Your task to perform on an android device: Show me recent news Image 0: 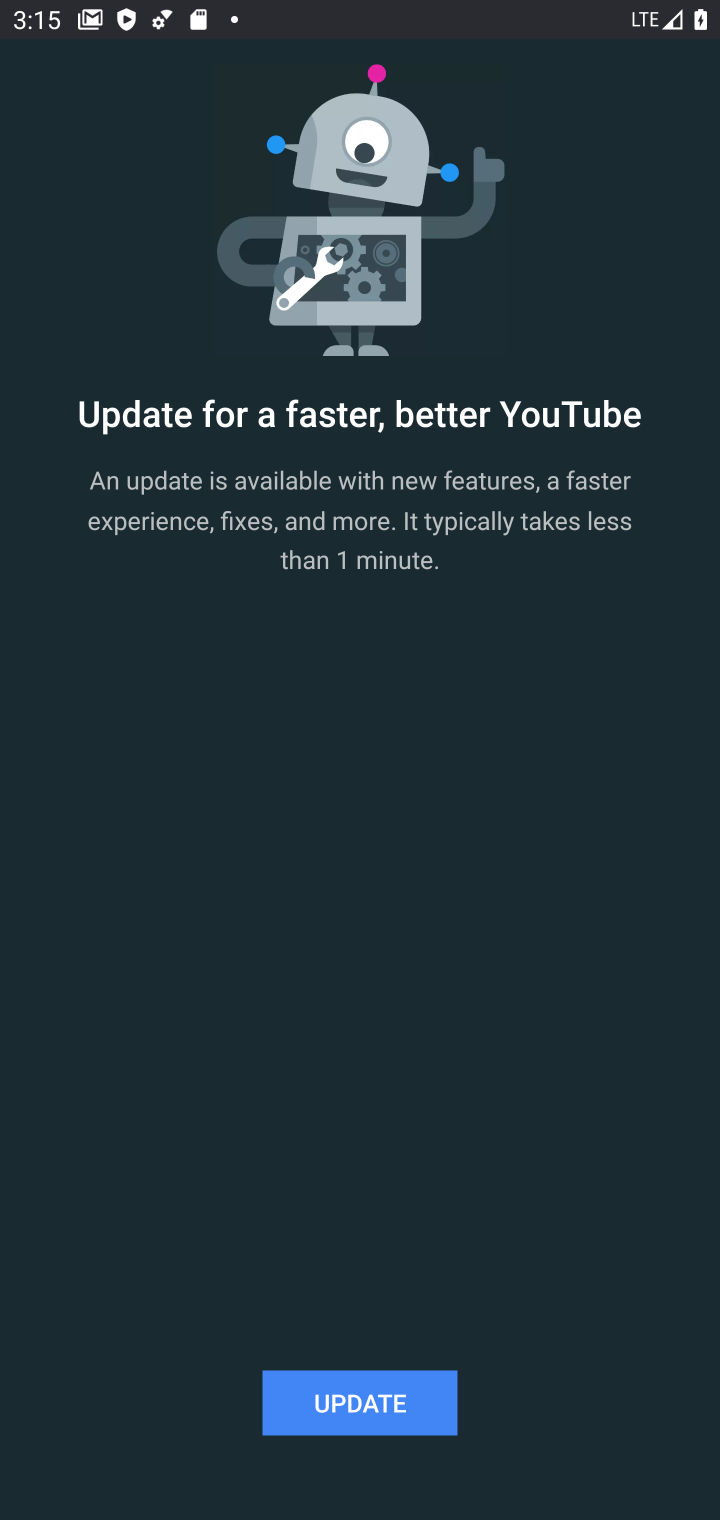
Step 0: press back button
Your task to perform on an android device: Show me recent news Image 1: 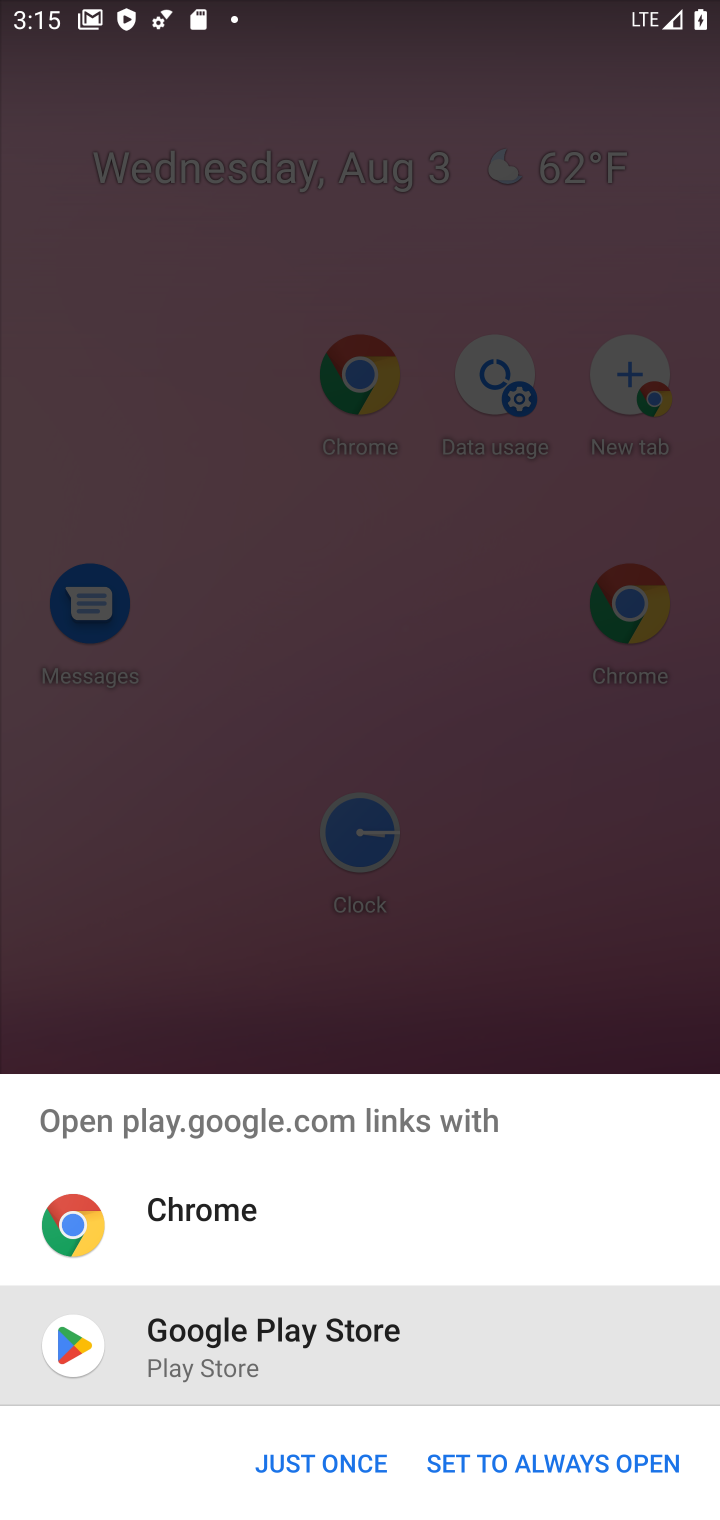
Step 1: drag from (335, 756) to (337, 381)
Your task to perform on an android device: Show me recent news Image 2: 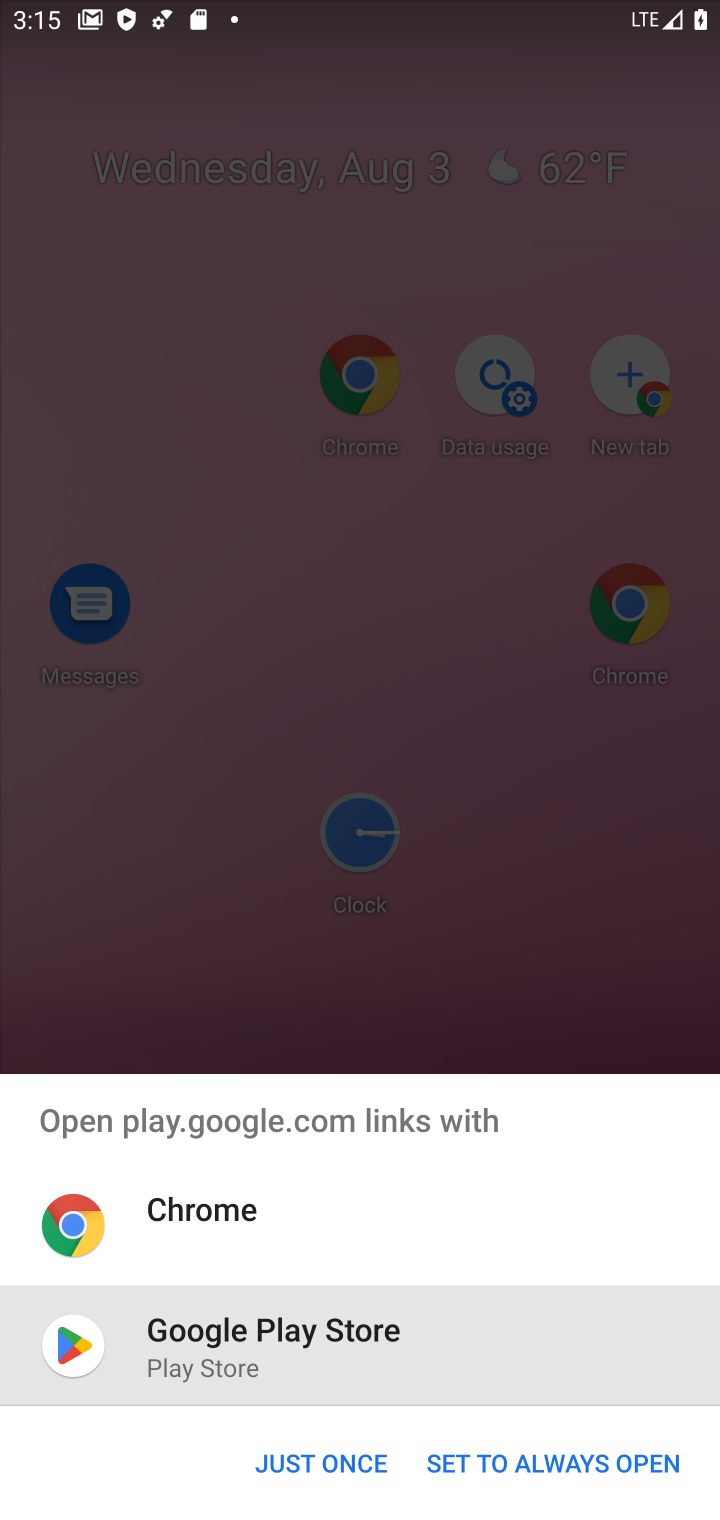
Step 2: drag from (382, 820) to (360, 307)
Your task to perform on an android device: Show me recent news Image 3: 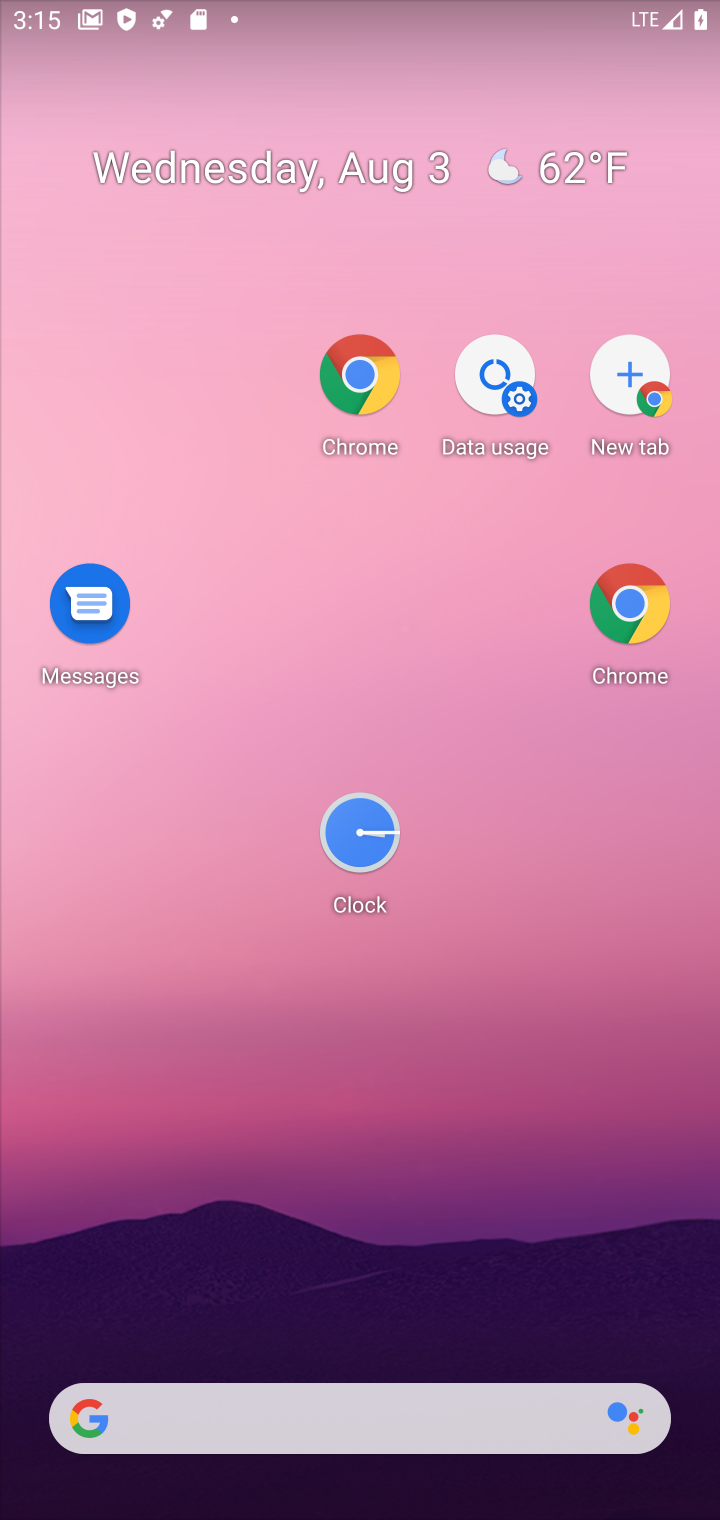
Step 3: click (273, 463)
Your task to perform on an android device: Show me recent news Image 4: 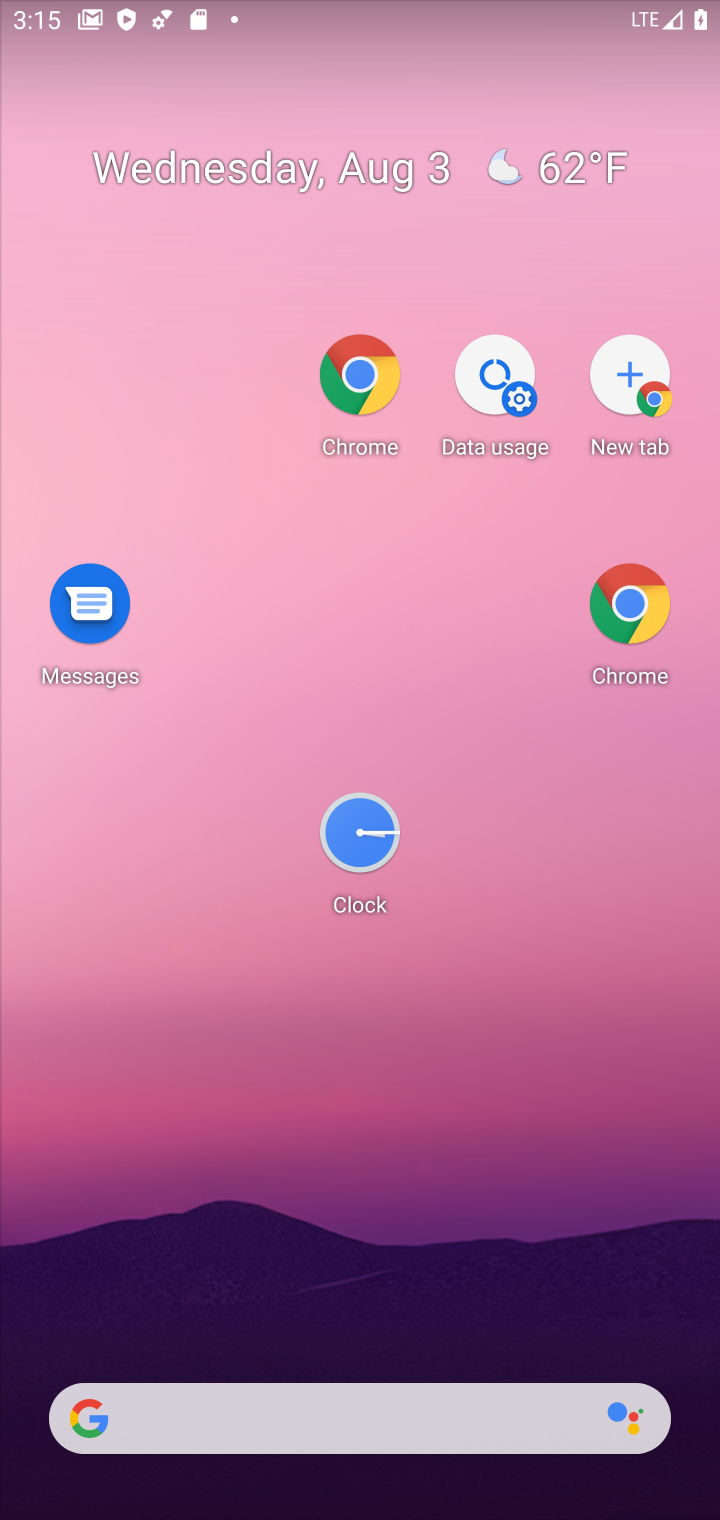
Step 4: drag from (347, 842) to (460, 331)
Your task to perform on an android device: Show me recent news Image 5: 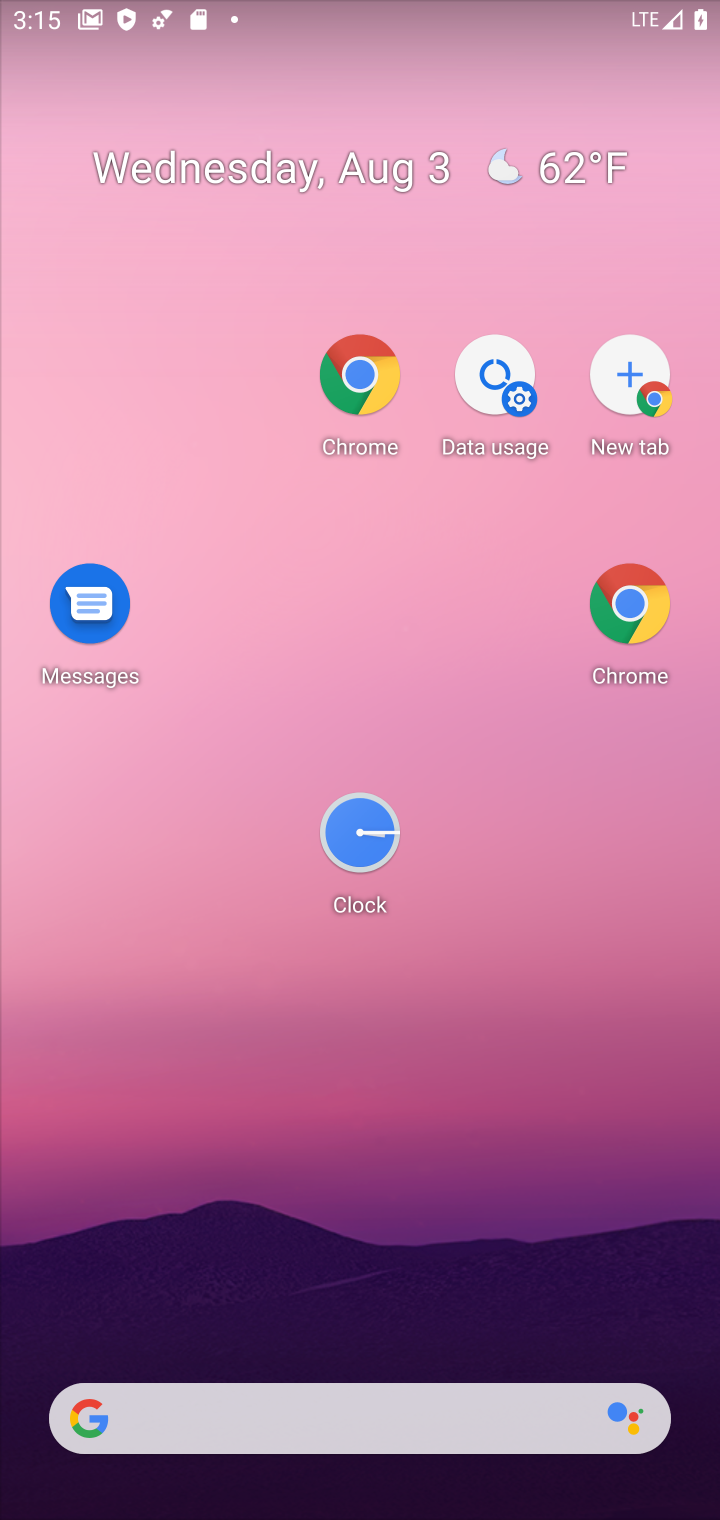
Step 5: drag from (462, 731) to (494, 172)
Your task to perform on an android device: Show me recent news Image 6: 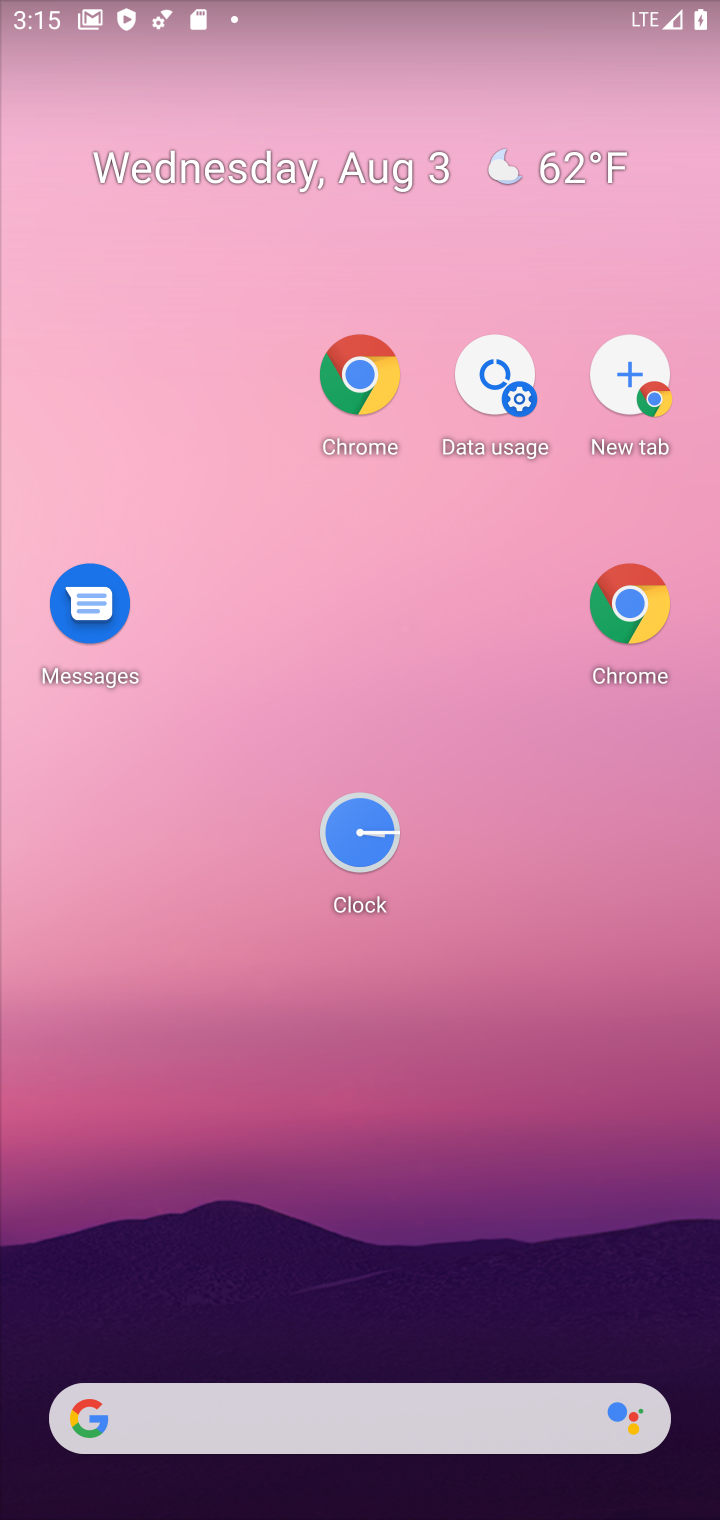
Step 6: drag from (453, 758) to (453, 328)
Your task to perform on an android device: Show me recent news Image 7: 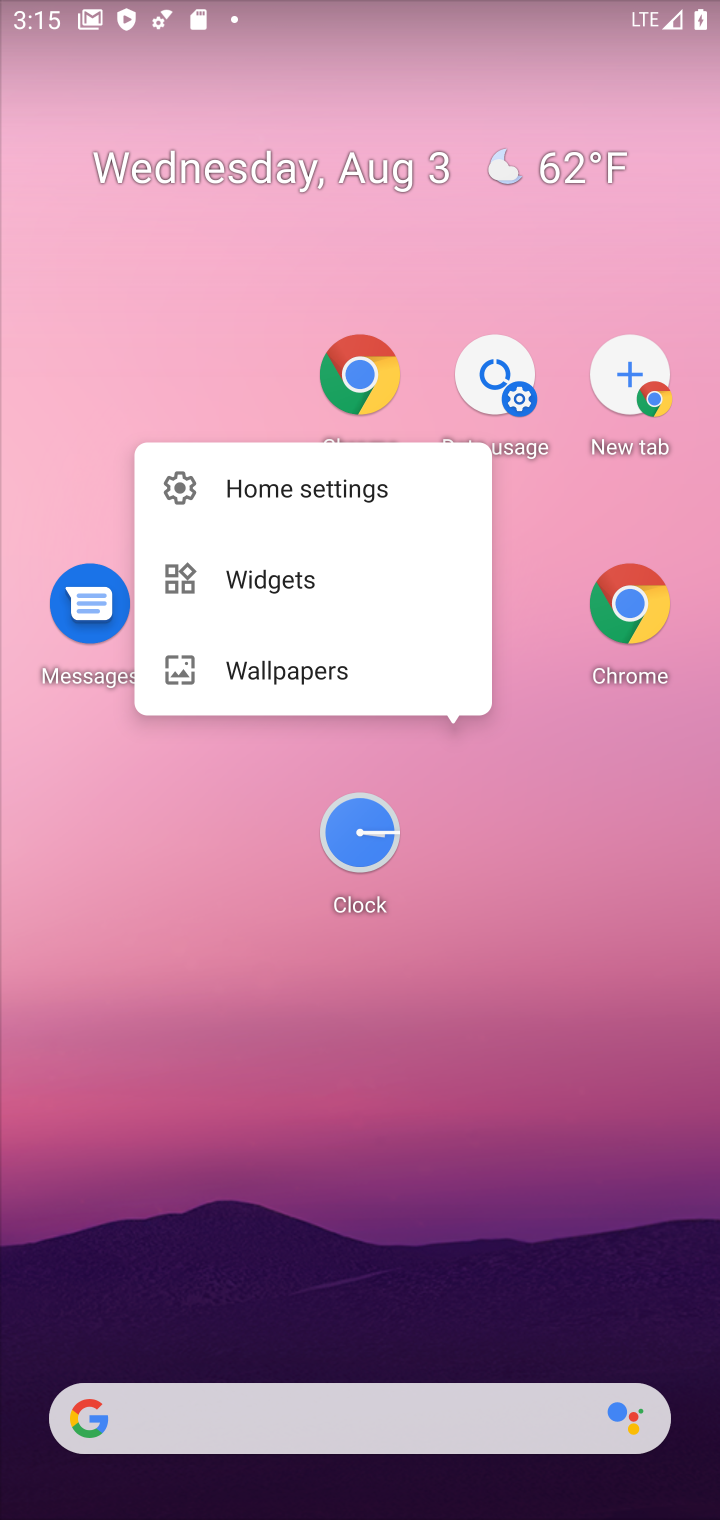
Step 7: click (639, 597)
Your task to perform on an android device: Show me recent news Image 8: 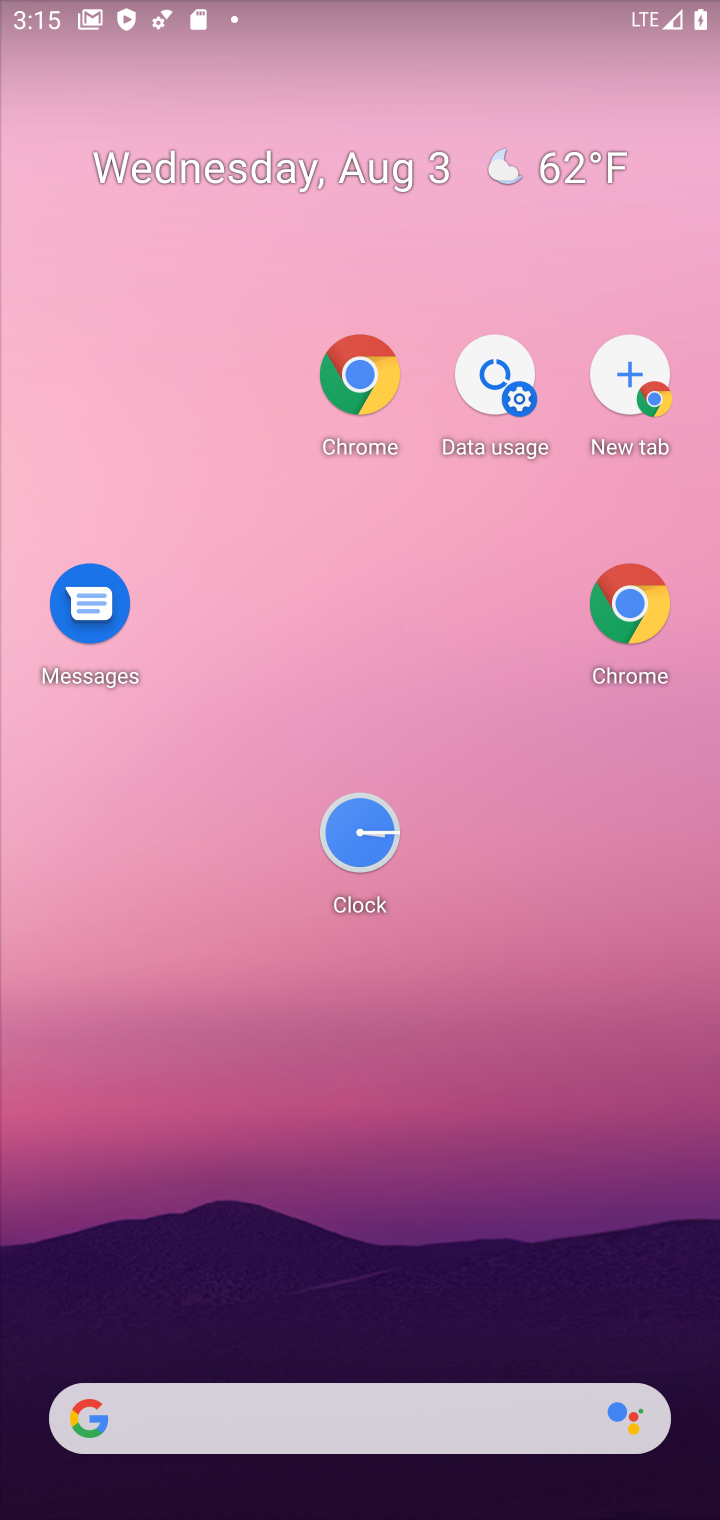
Step 8: drag from (286, 1404) to (246, 600)
Your task to perform on an android device: Show me recent news Image 9: 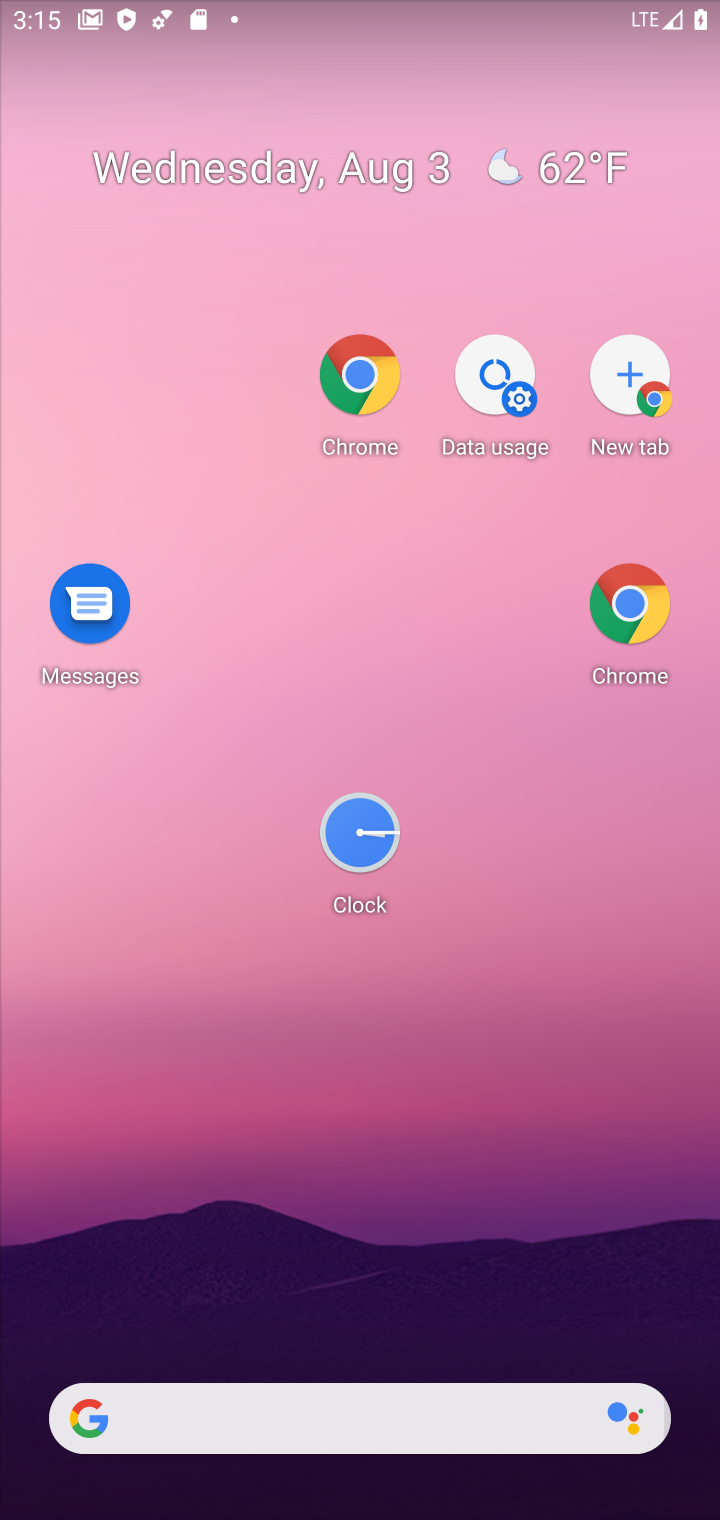
Step 9: drag from (327, 683) to (327, 465)
Your task to perform on an android device: Show me recent news Image 10: 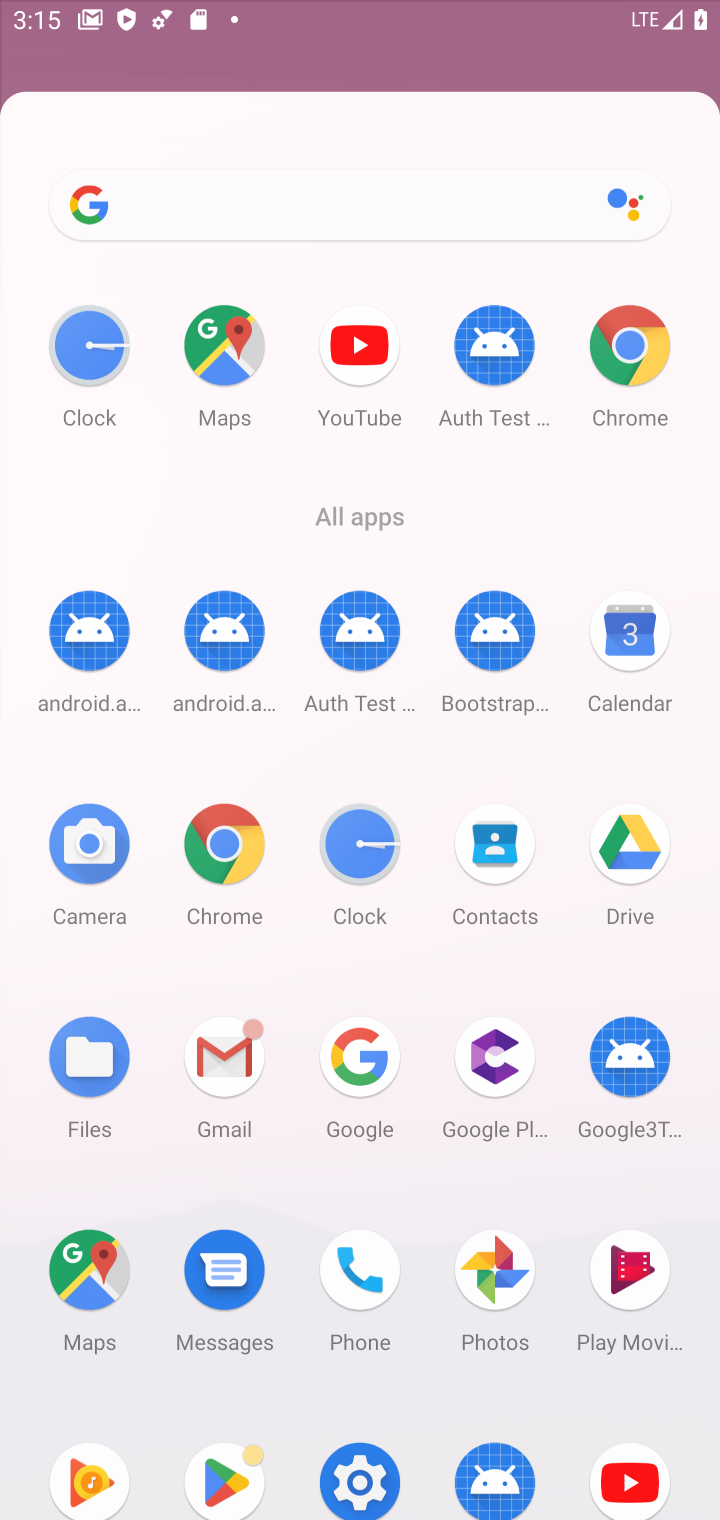
Step 10: drag from (331, 862) to (394, 439)
Your task to perform on an android device: Show me recent news Image 11: 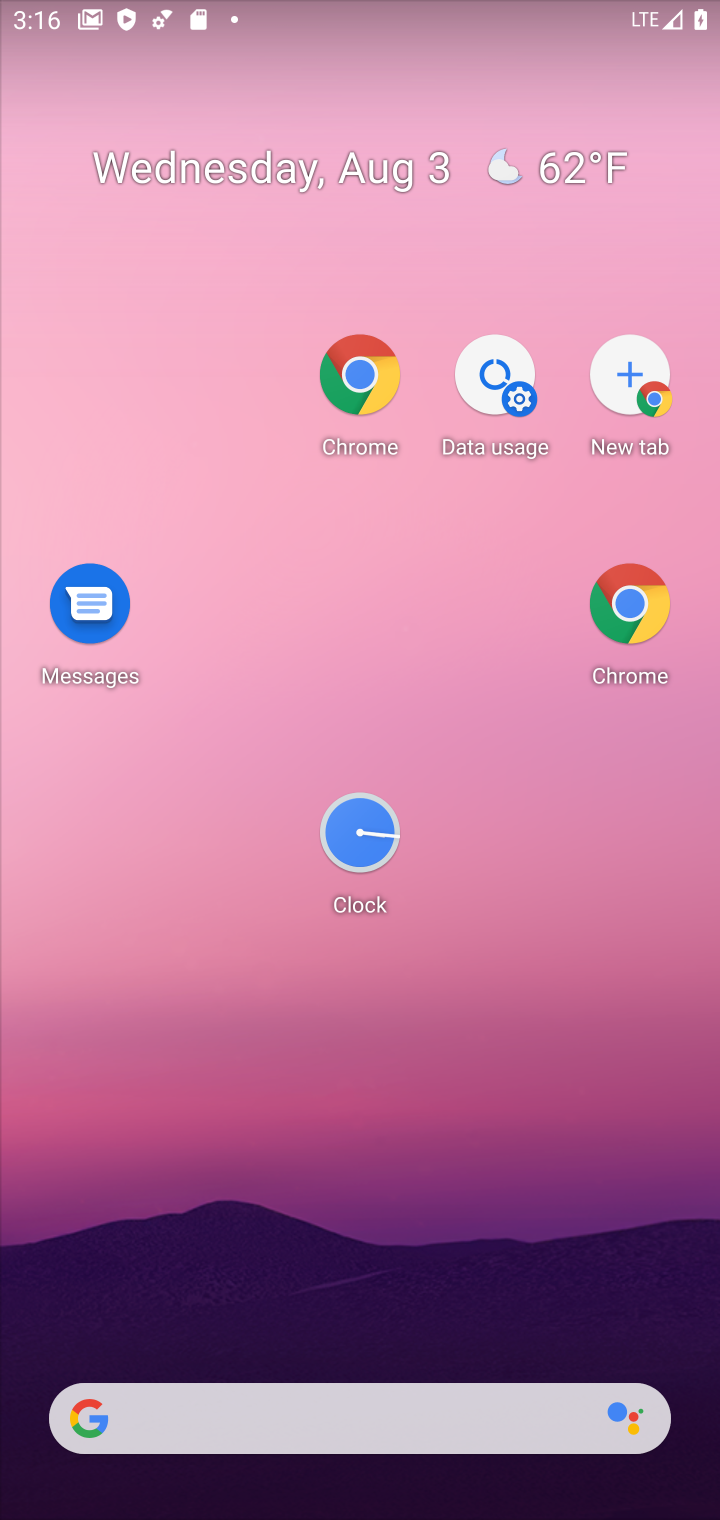
Step 11: drag from (315, 1195) to (305, 639)
Your task to perform on an android device: Show me recent news Image 12: 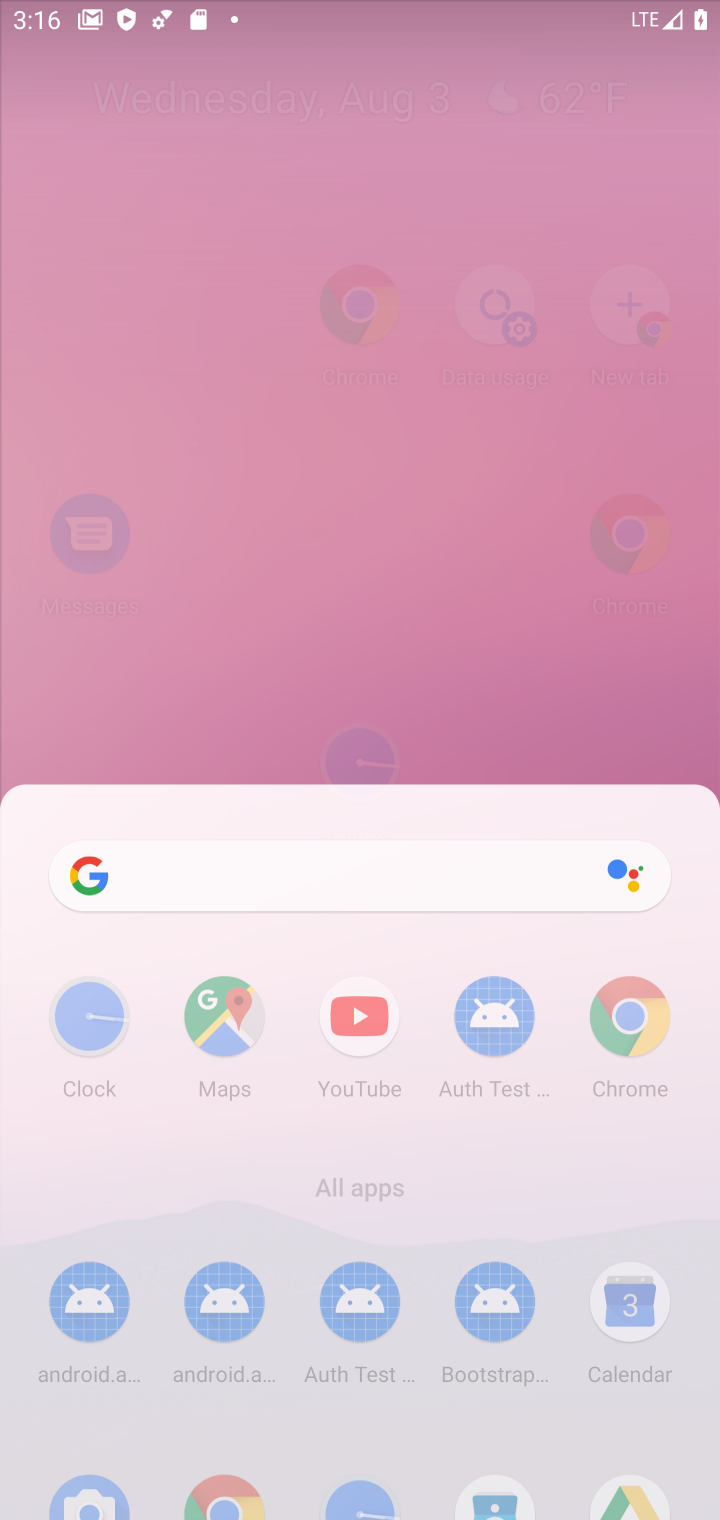
Step 12: drag from (211, 1044) to (228, 541)
Your task to perform on an android device: Show me recent news Image 13: 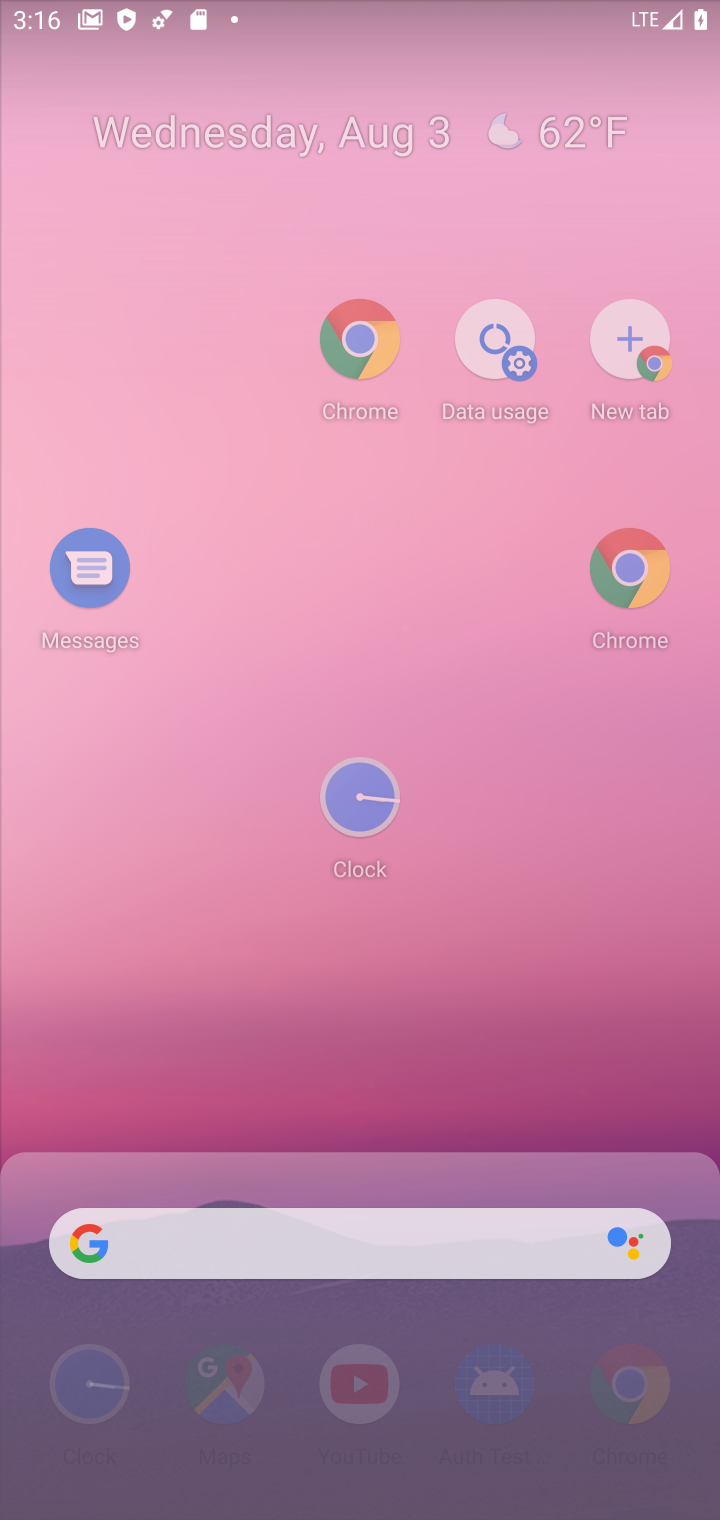
Step 13: click (369, 474)
Your task to perform on an android device: Show me recent news Image 14: 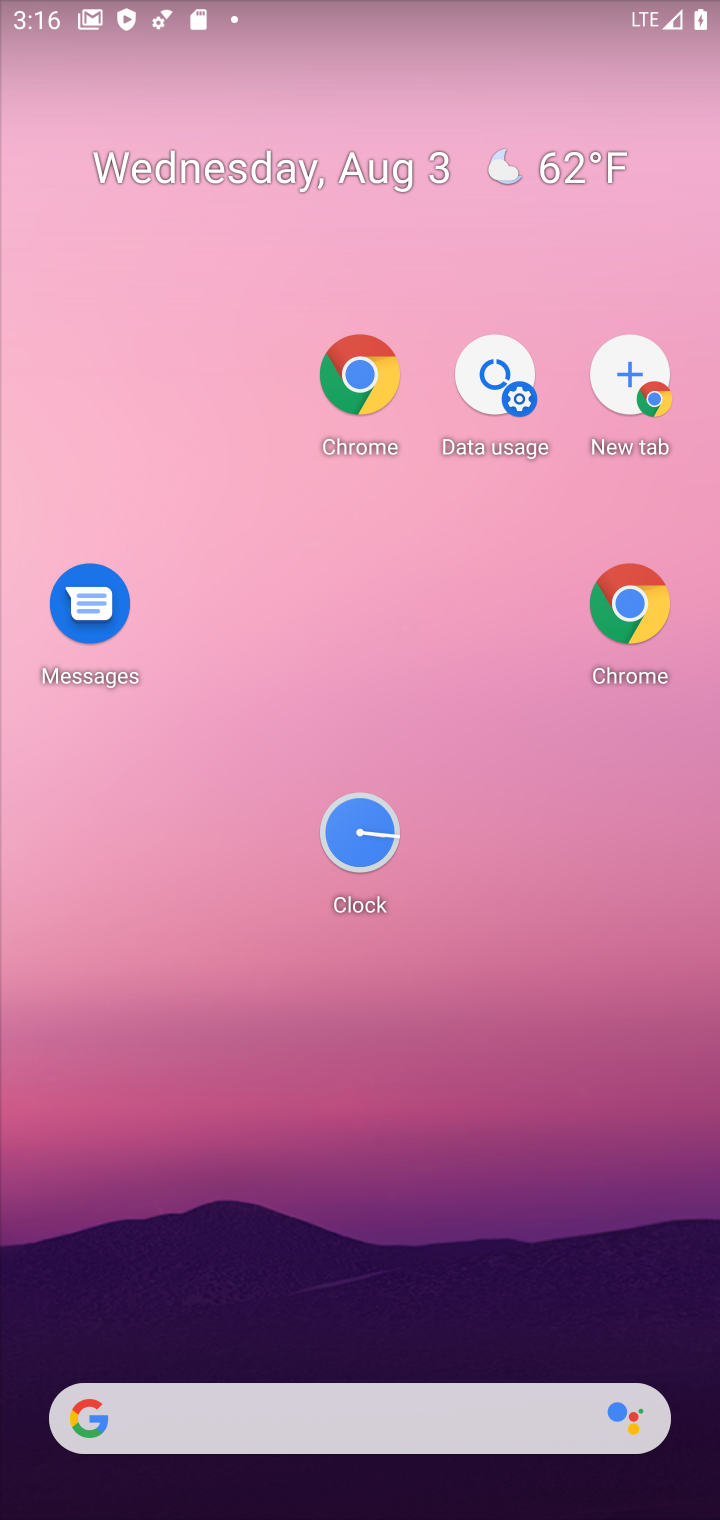
Step 14: click (370, 409)
Your task to perform on an android device: Show me recent news Image 15: 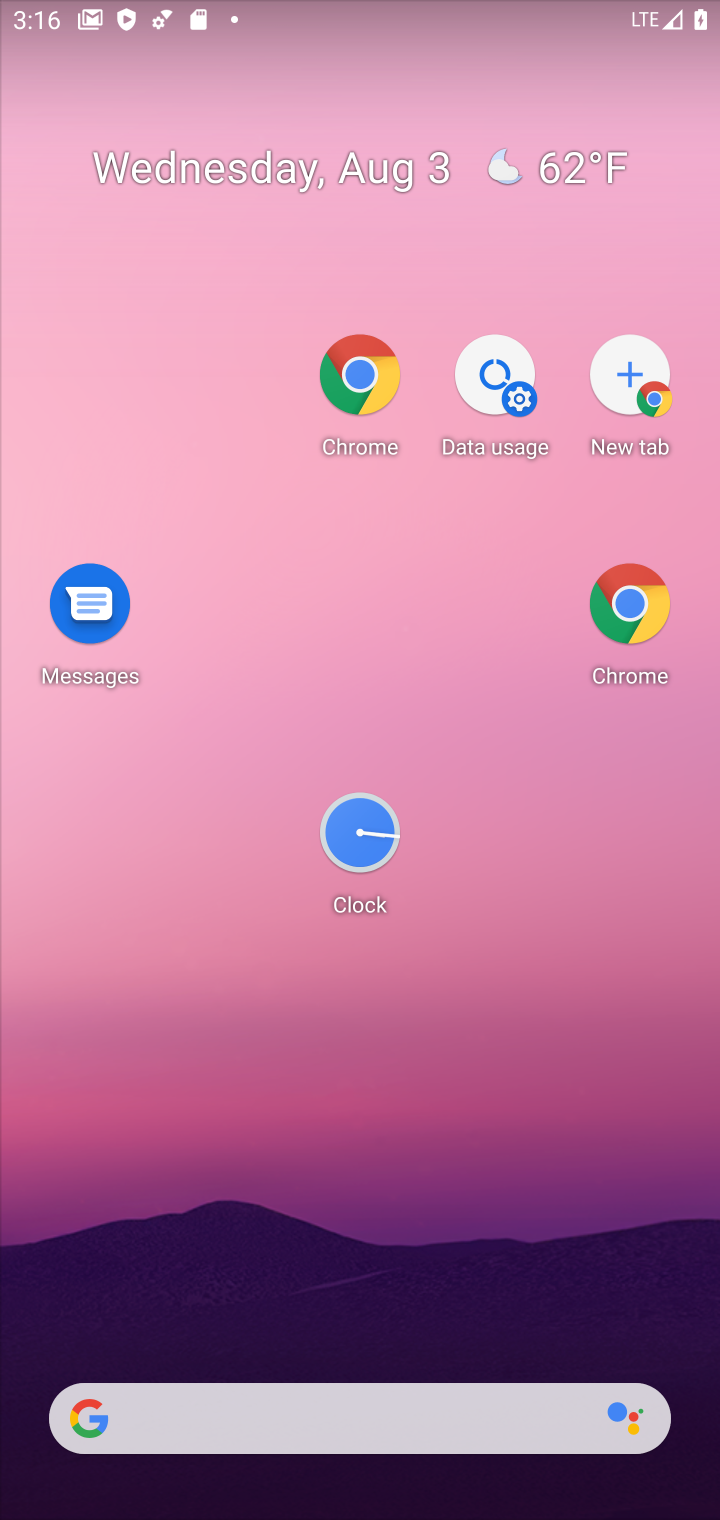
Step 15: click (370, 411)
Your task to perform on an android device: Show me recent news Image 16: 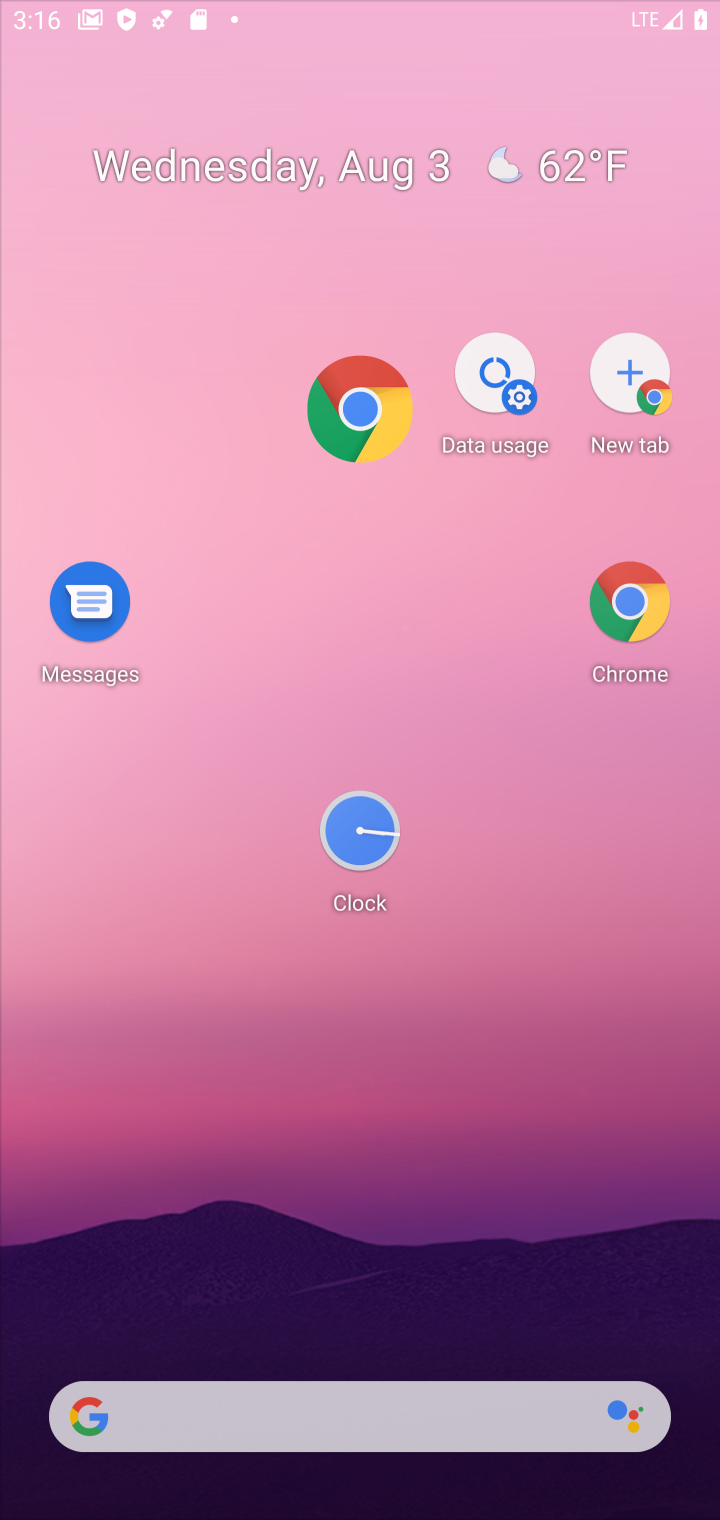
Step 16: click (372, 422)
Your task to perform on an android device: Show me recent news Image 17: 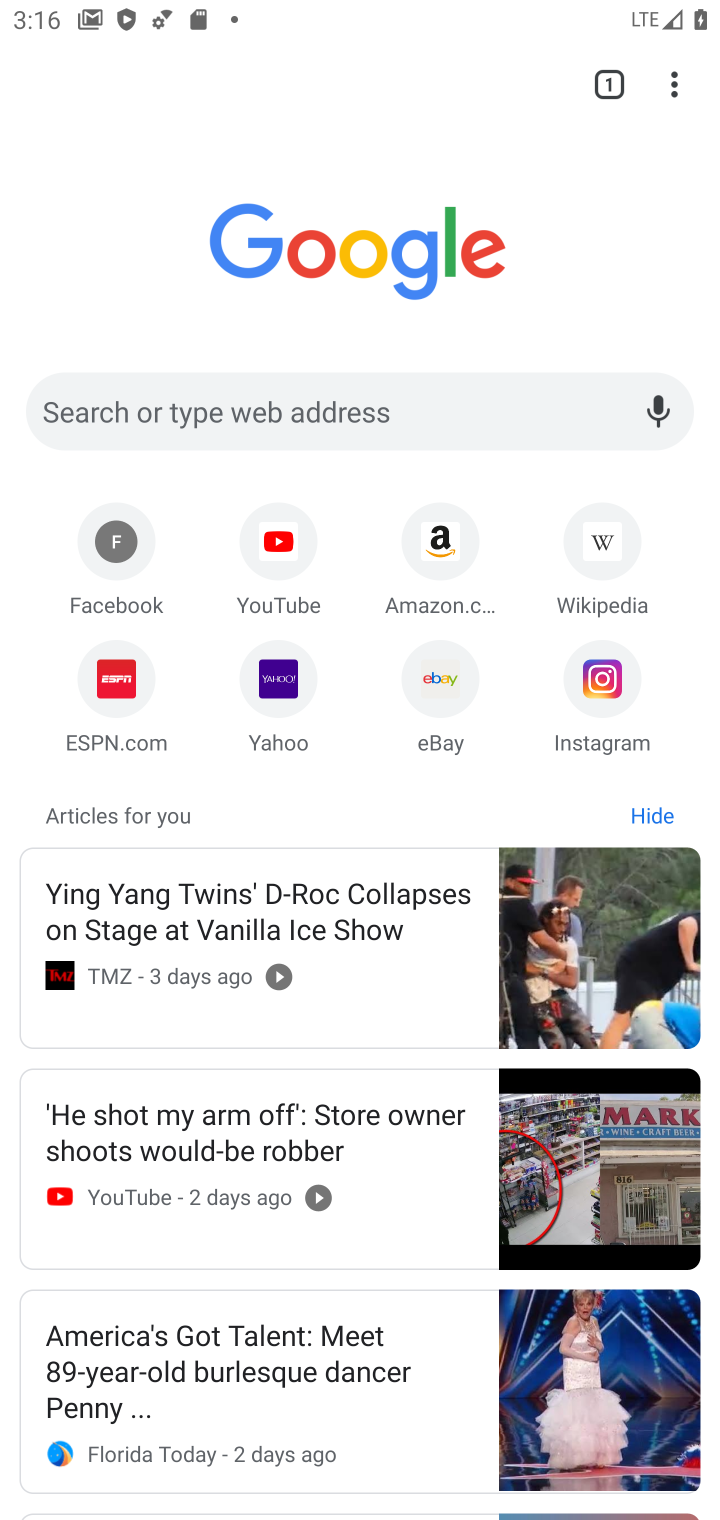
Step 17: task complete